Your task to perform on an android device: Look up the best rated Nike shoes on Nike.com Image 0: 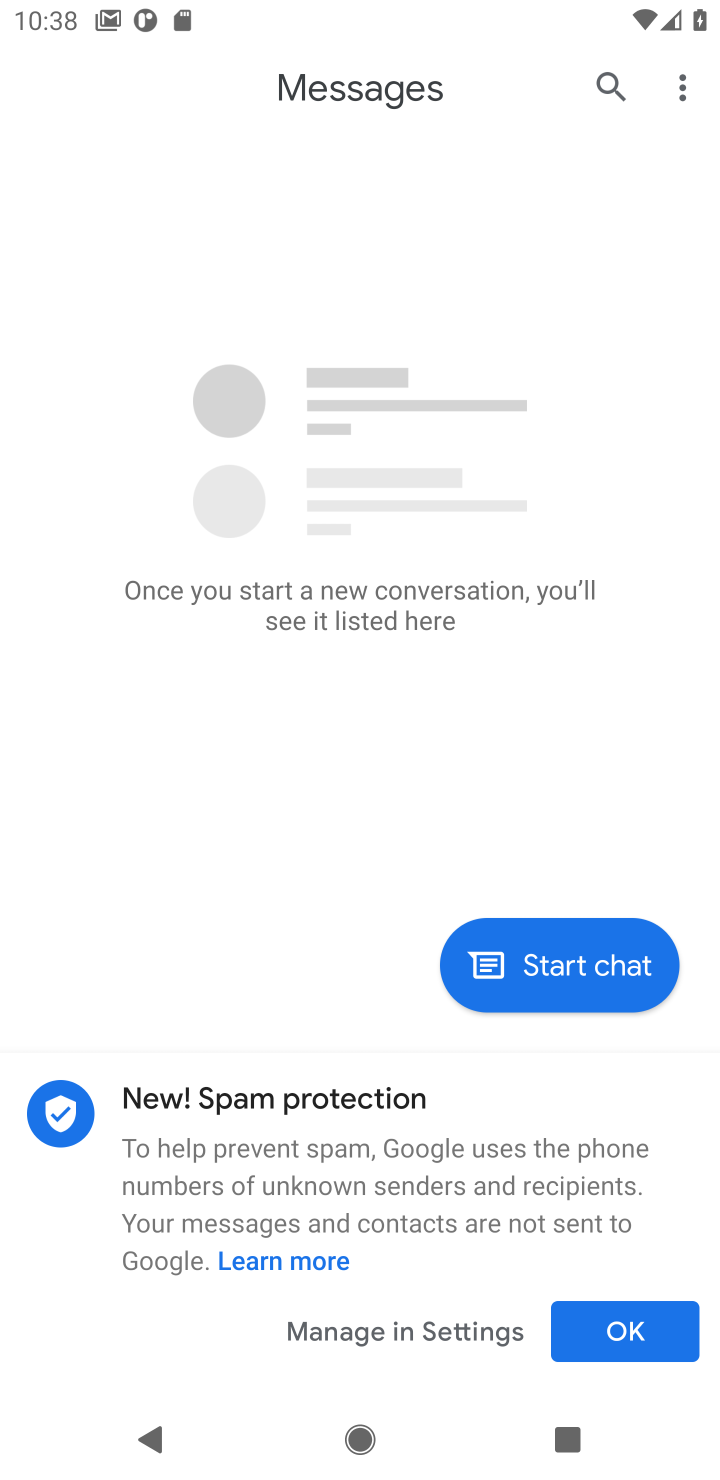
Step 0: press home button
Your task to perform on an android device: Look up the best rated Nike shoes on Nike.com Image 1: 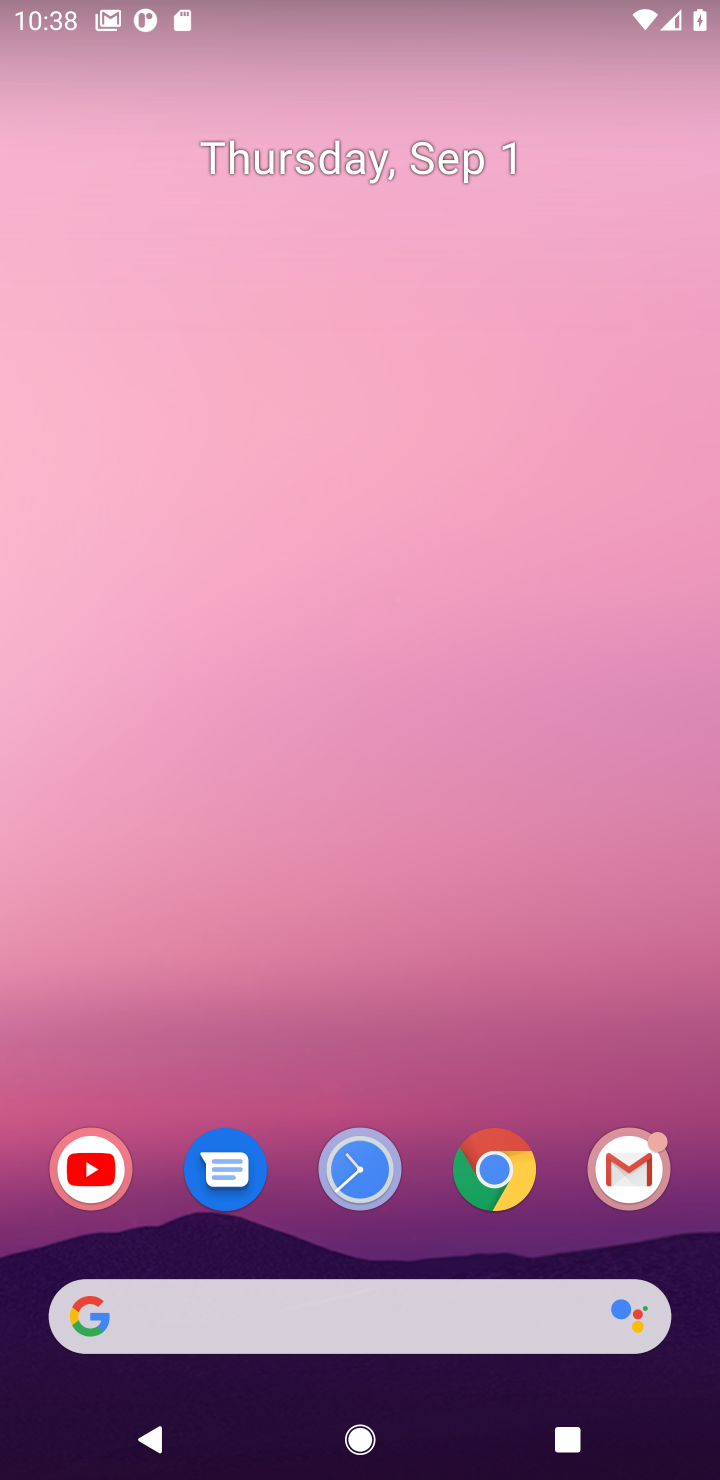
Step 1: drag from (416, 1248) to (446, 66)
Your task to perform on an android device: Look up the best rated Nike shoes on Nike.com Image 2: 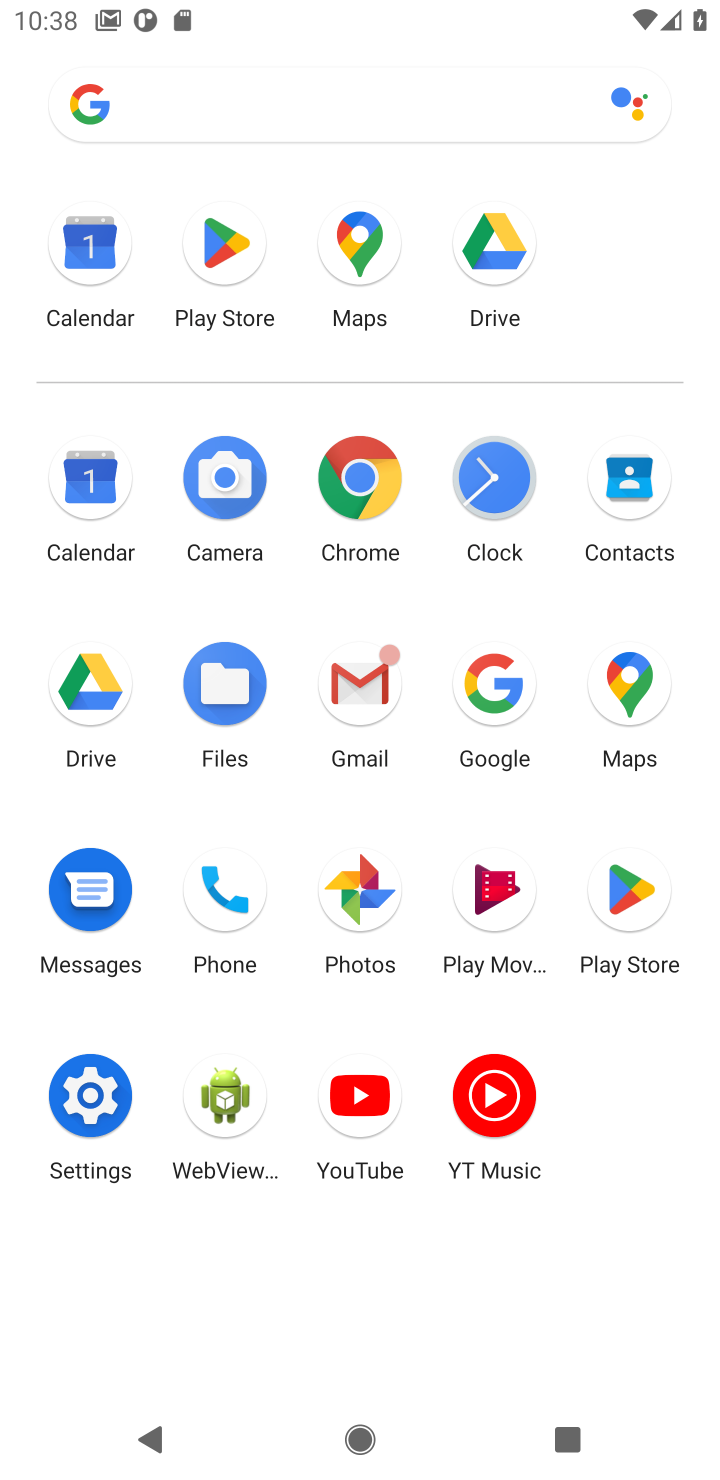
Step 2: click (357, 467)
Your task to perform on an android device: Look up the best rated Nike shoes on Nike.com Image 3: 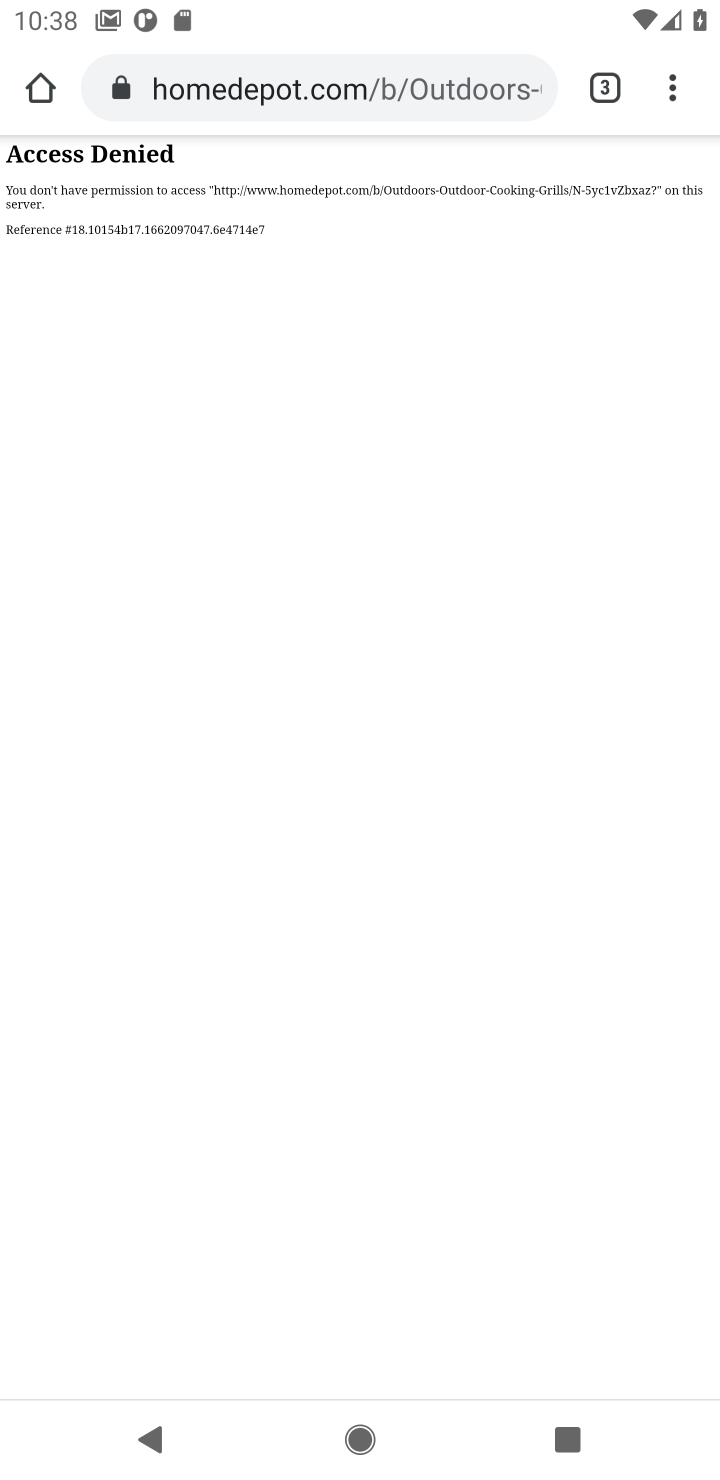
Step 3: click (195, 88)
Your task to perform on an android device: Look up the best rated Nike shoes on Nike.com Image 4: 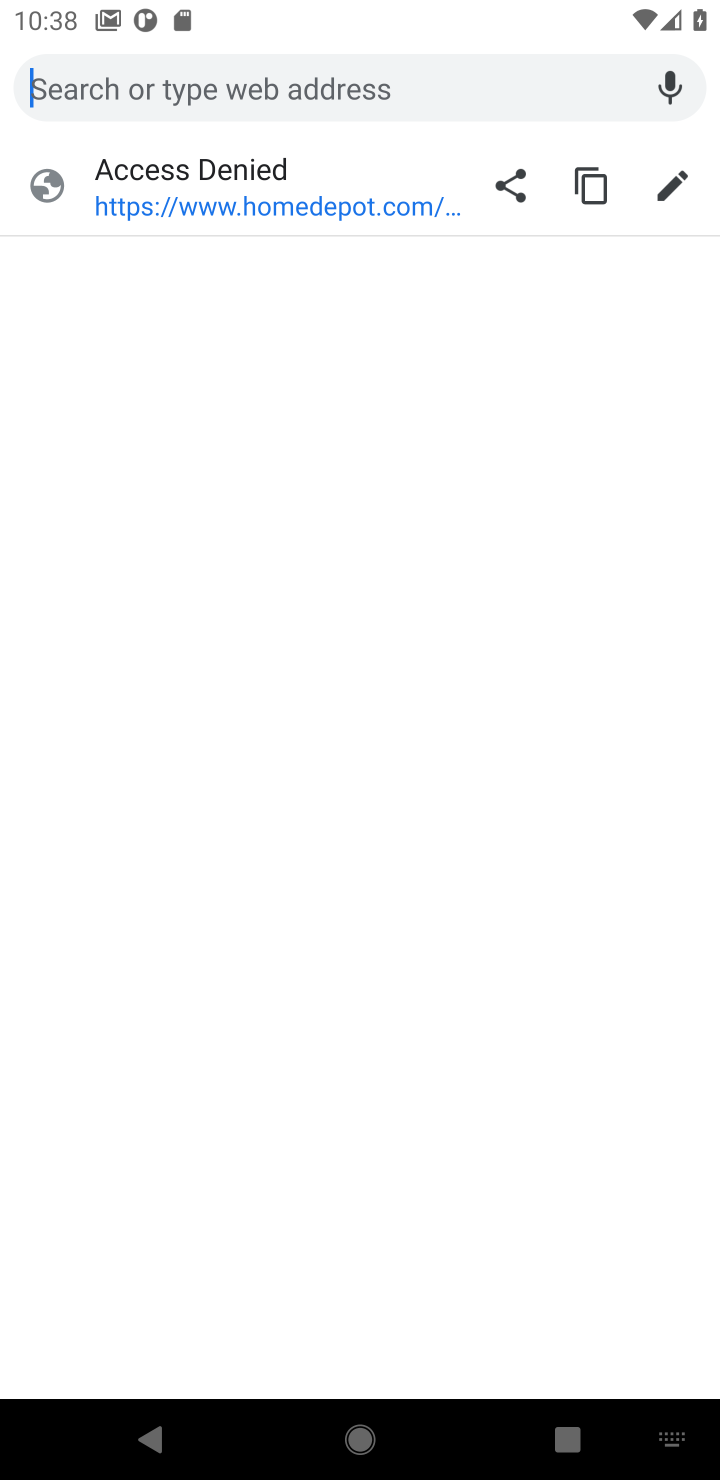
Step 4: type "best rated Nike shoes on Nike.com"
Your task to perform on an android device: Look up the best rated Nike shoes on Nike.com Image 5: 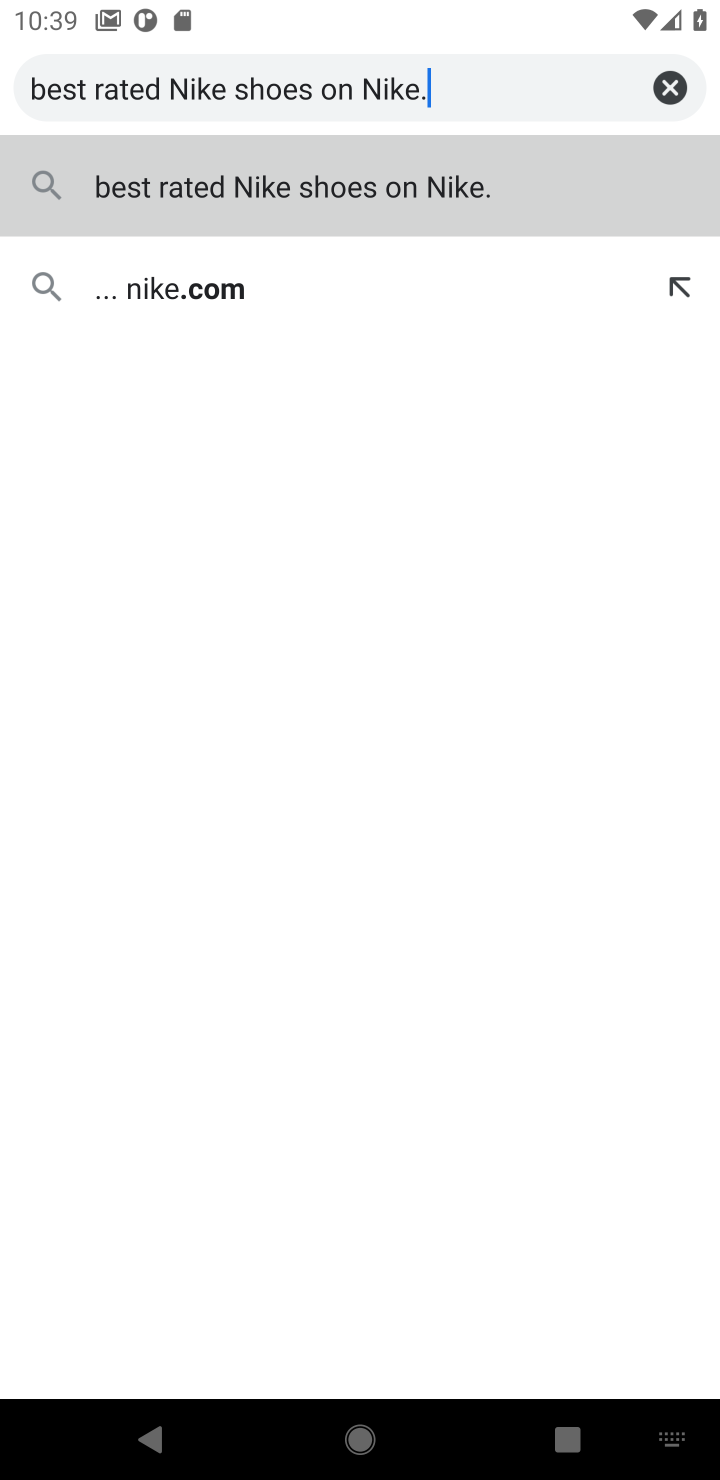
Step 5: click (341, 208)
Your task to perform on an android device: Look up the best rated Nike shoes on Nike.com Image 6: 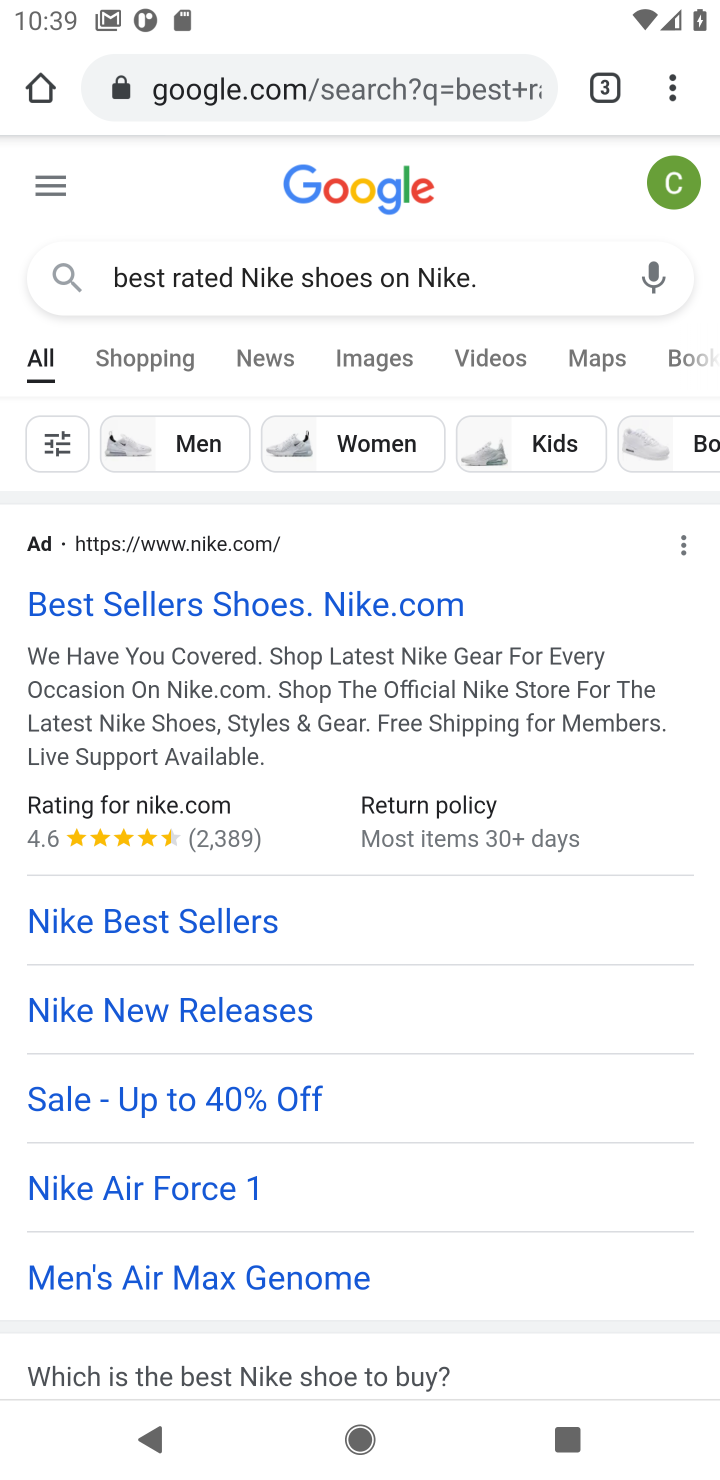
Step 6: click (281, 603)
Your task to perform on an android device: Look up the best rated Nike shoes on Nike.com Image 7: 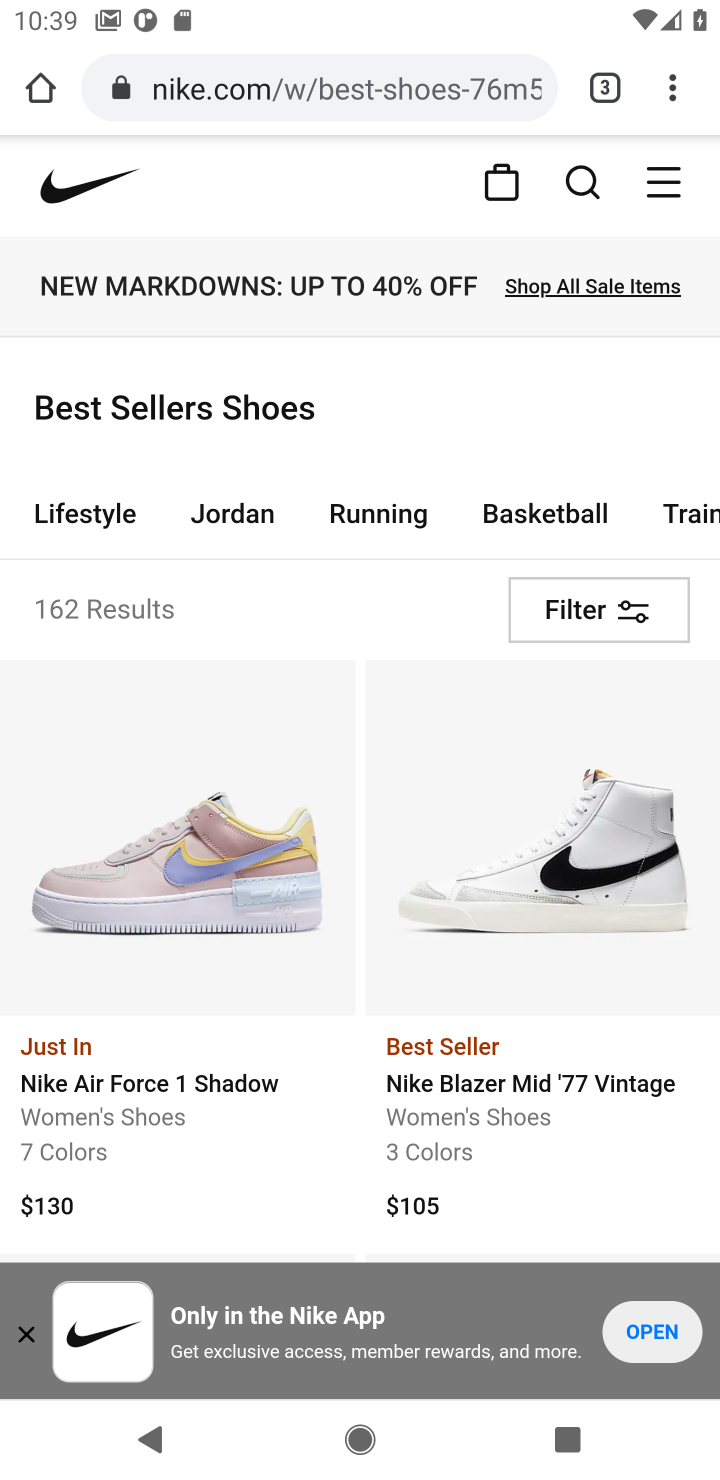
Step 7: task complete